Your task to perform on an android device: Set the phone to "Do not disturb". Image 0: 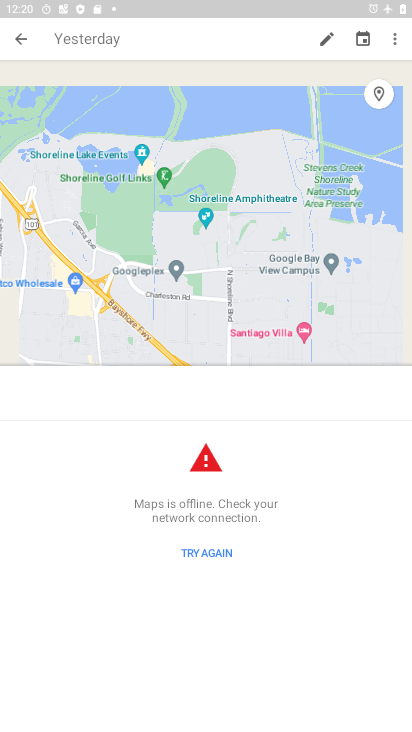
Step 0: press home button
Your task to perform on an android device: Set the phone to "Do not disturb". Image 1: 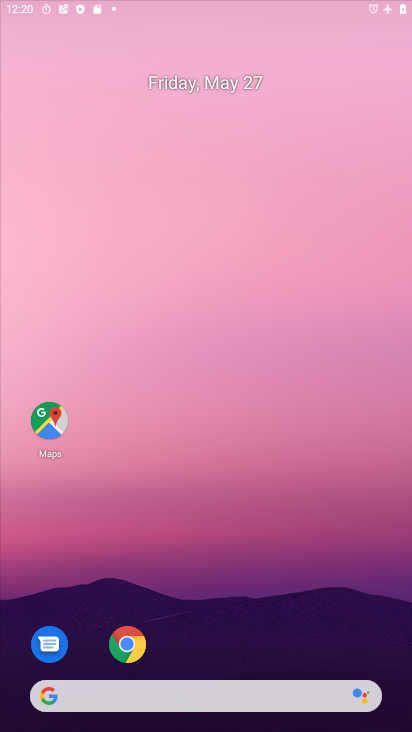
Step 1: drag from (212, 612) to (163, 220)
Your task to perform on an android device: Set the phone to "Do not disturb". Image 2: 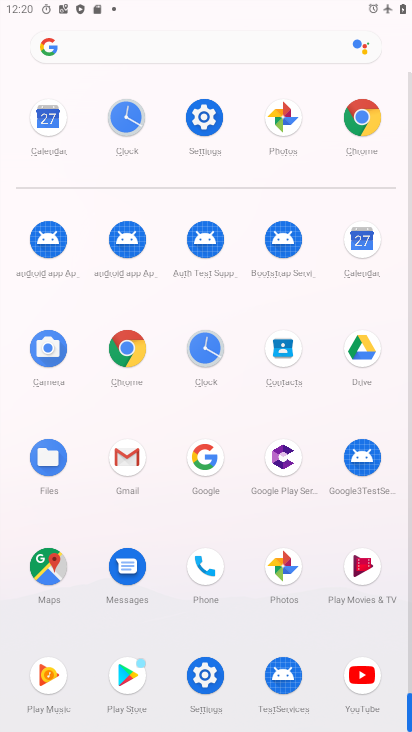
Step 2: click (201, 131)
Your task to perform on an android device: Set the phone to "Do not disturb". Image 3: 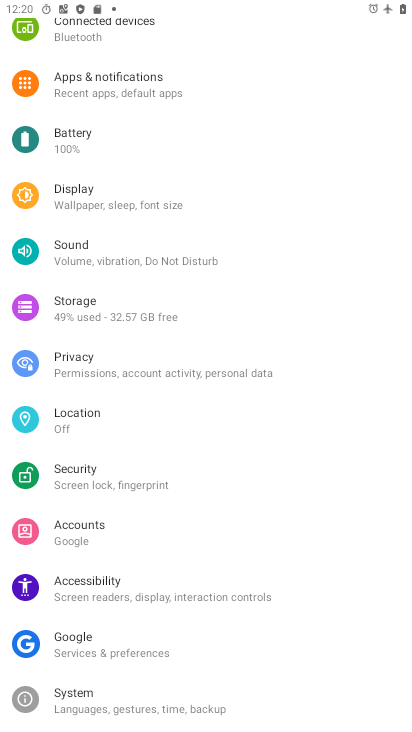
Step 3: click (116, 263)
Your task to perform on an android device: Set the phone to "Do not disturb". Image 4: 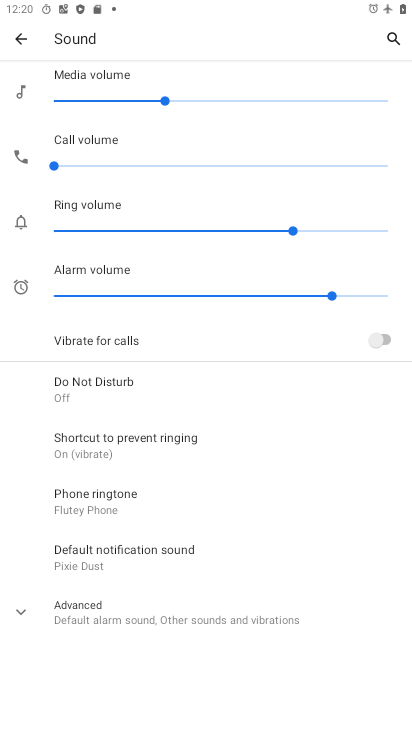
Step 4: click (145, 381)
Your task to perform on an android device: Set the phone to "Do not disturb". Image 5: 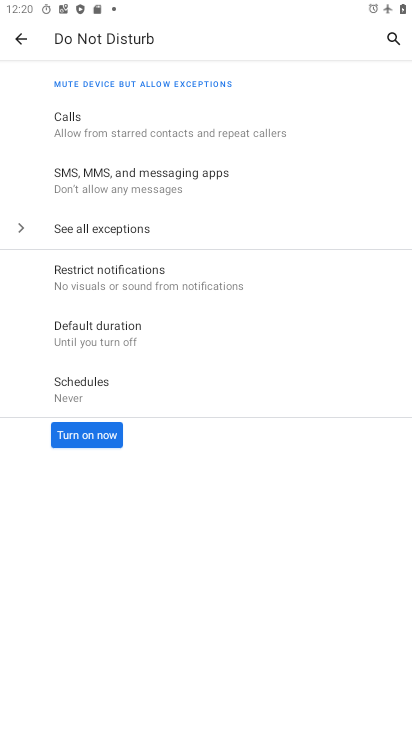
Step 5: click (110, 429)
Your task to perform on an android device: Set the phone to "Do not disturb". Image 6: 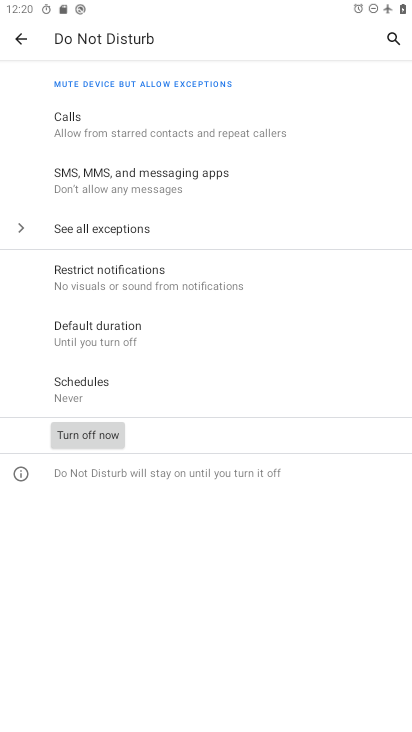
Step 6: task complete